Your task to perform on an android device: Check the weather Image 0: 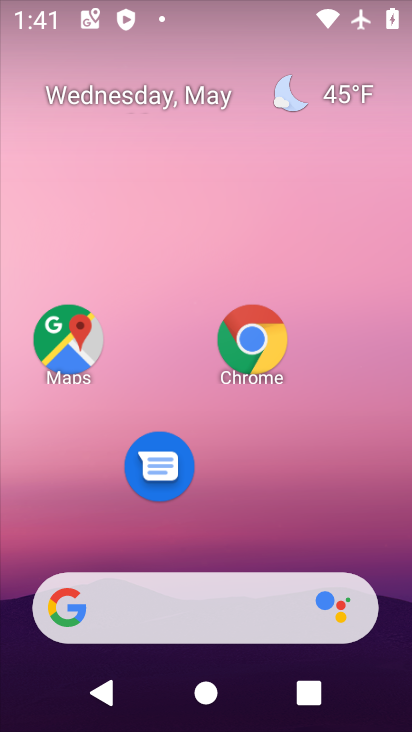
Step 0: click (332, 97)
Your task to perform on an android device: Check the weather Image 1: 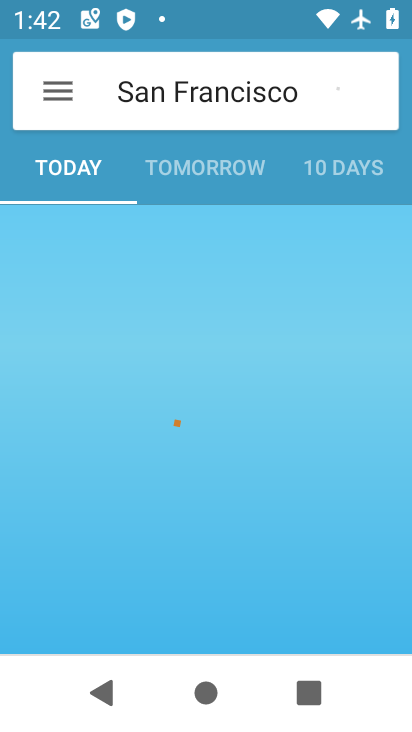
Step 1: press back button
Your task to perform on an android device: Check the weather Image 2: 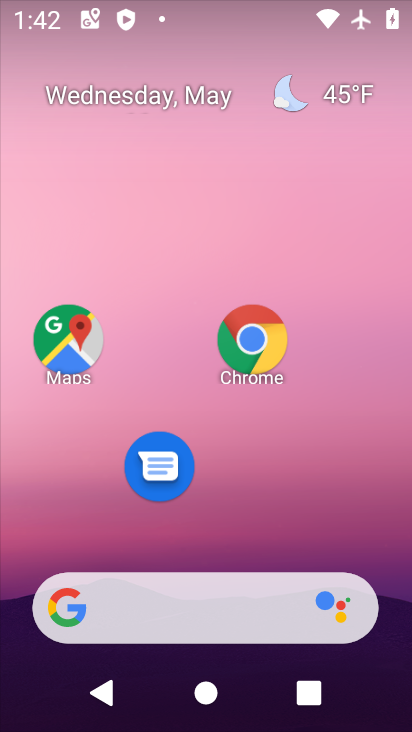
Step 2: click (334, 100)
Your task to perform on an android device: Check the weather Image 3: 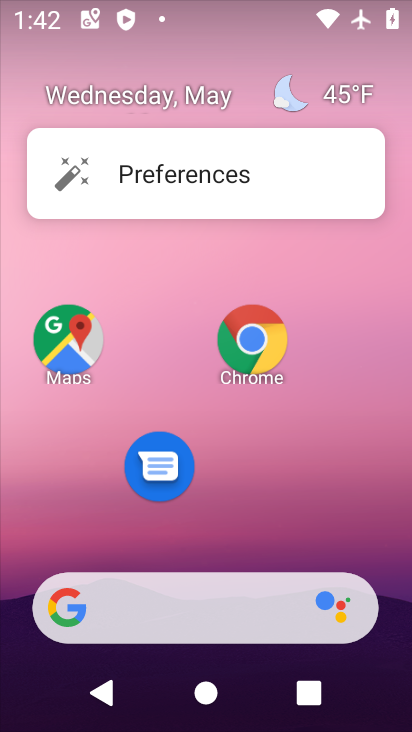
Step 3: click (340, 92)
Your task to perform on an android device: Check the weather Image 4: 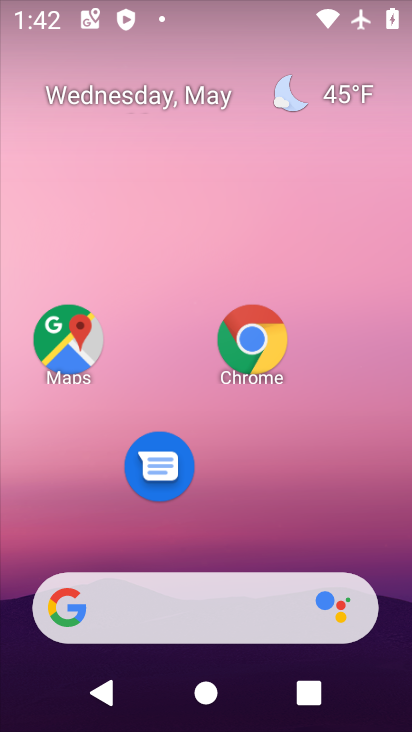
Step 4: click (326, 90)
Your task to perform on an android device: Check the weather Image 5: 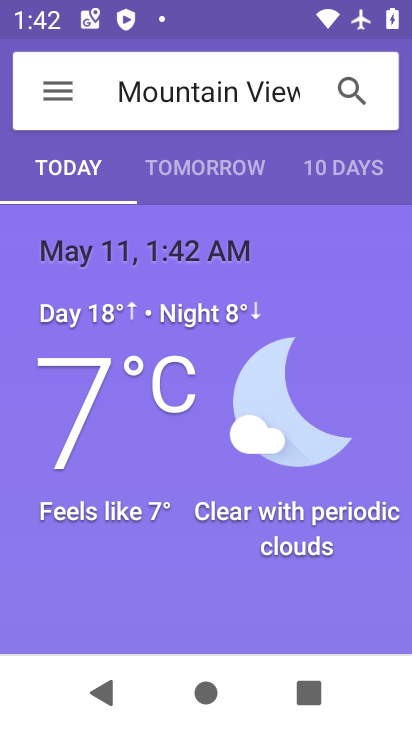
Step 5: task complete